Your task to perform on an android device: Find coffee shops on Maps Image 0: 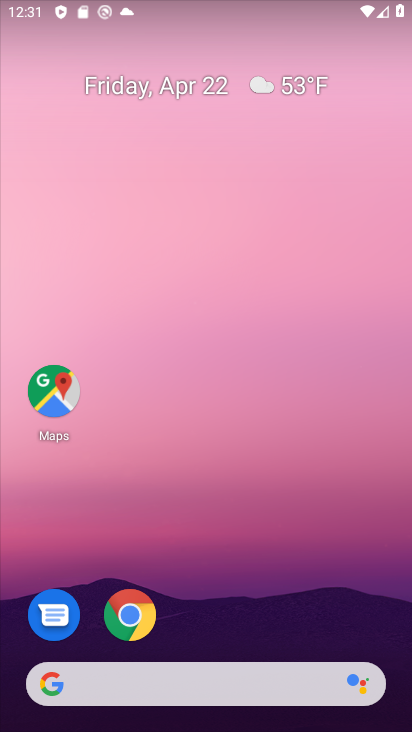
Step 0: click (53, 392)
Your task to perform on an android device: Find coffee shops on Maps Image 1: 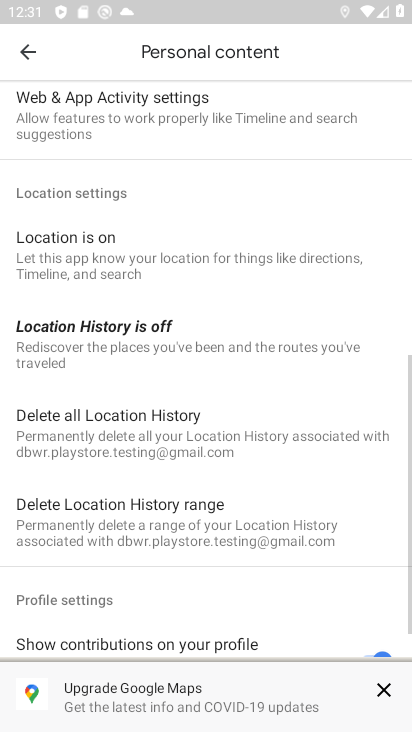
Step 1: click (35, 56)
Your task to perform on an android device: Find coffee shops on Maps Image 2: 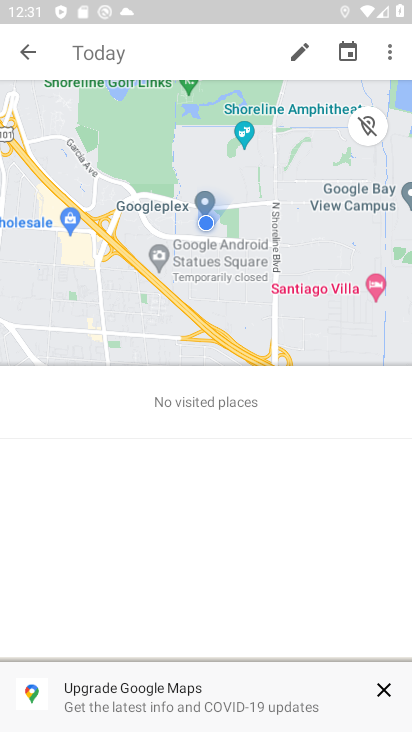
Step 2: click (33, 49)
Your task to perform on an android device: Find coffee shops on Maps Image 3: 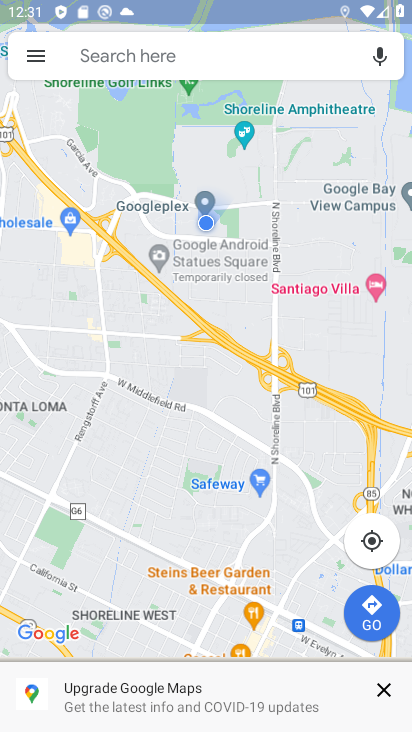
Step 3: click (117, 56)
Your task to perform on an android device: Find coffee shops on Maps Image 4: 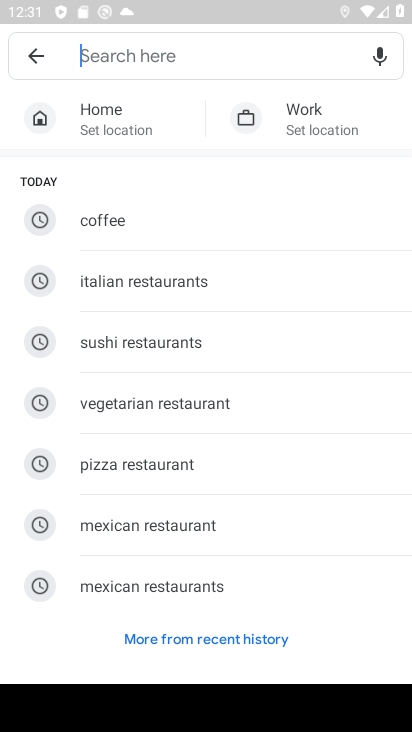
Step 4: type "coffee shops"
Your task to perform on an android device: Find coffee shops on Maps Image 5: 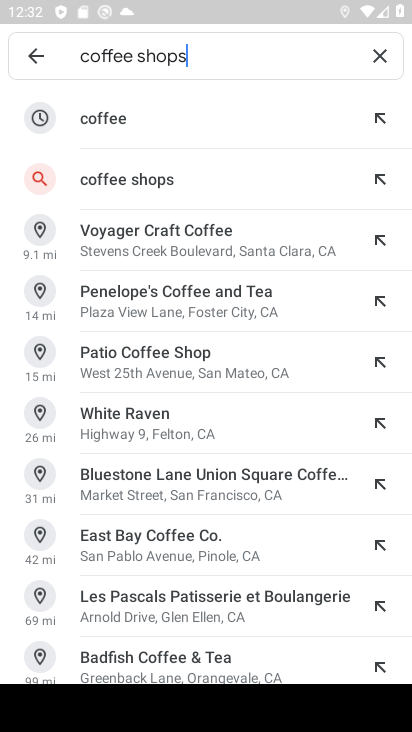
Step 5: click (102, 182)
Your task to perform on an android device: Find coffee shops on Maps Image 6: 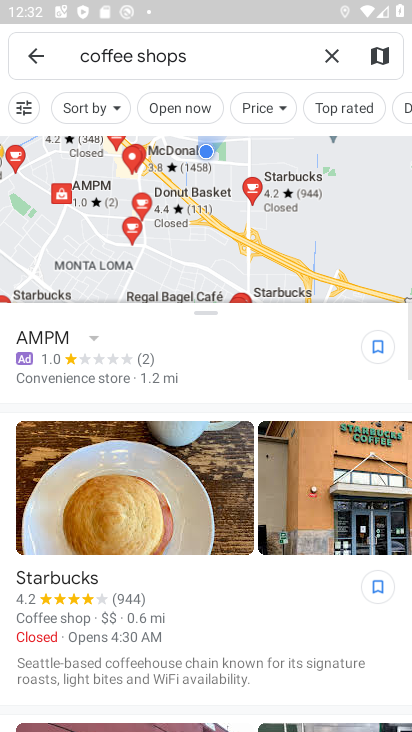
Step 6: drag from (255, 430) to (248, 165)
Your task to perform on an android device: Find coffee shops on Maps Image 7: 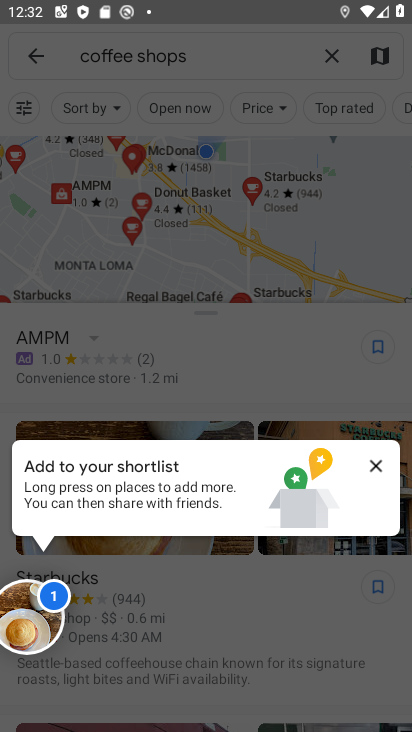
Step 7: click (371, 462)
Your task to perform on an android device: Find coffee shops on Maps Image 8: 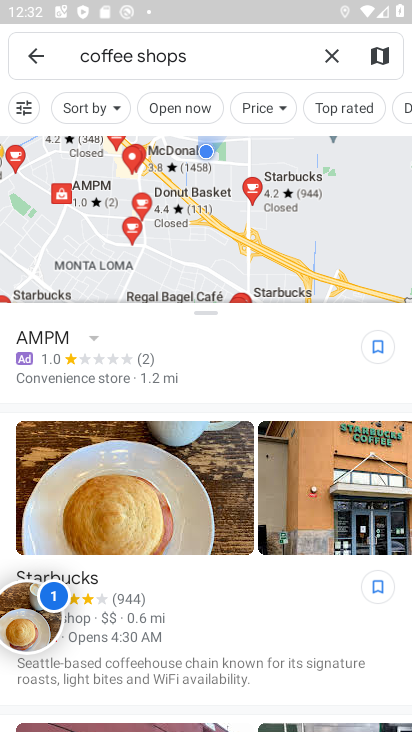
Step 8: task complete